Your task to perform on an android device: Do I have any events this weekend? Image 0: 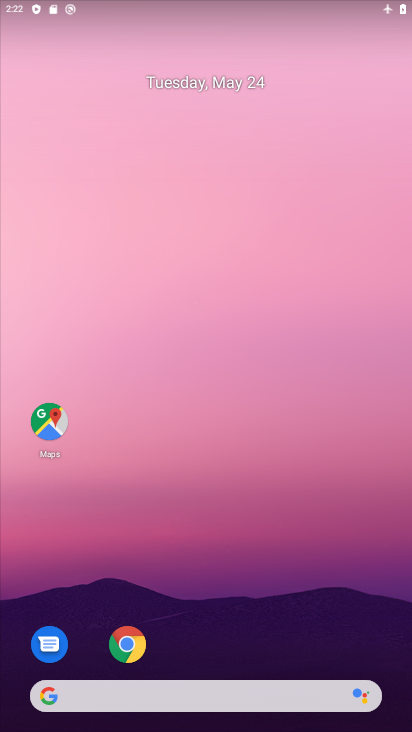
Step 0: drag from (237, 622) to (233, 121)
Your task to perform on an android device: Do I have any events this weekend? Image 1: 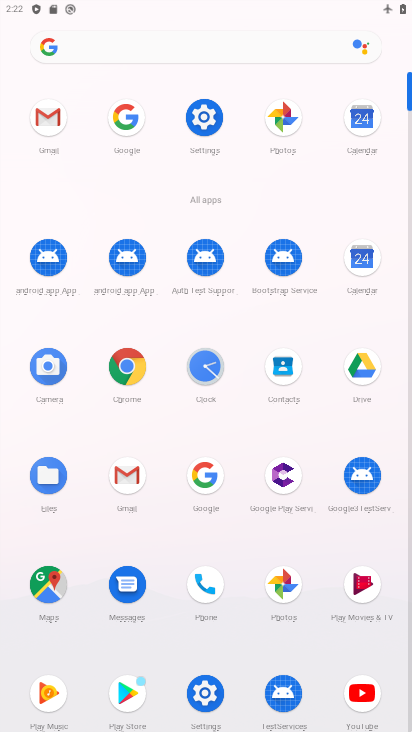
Step 1: click (363, 265)
Your task to perform on an android device: Do I have any events this weekend? Image 2: 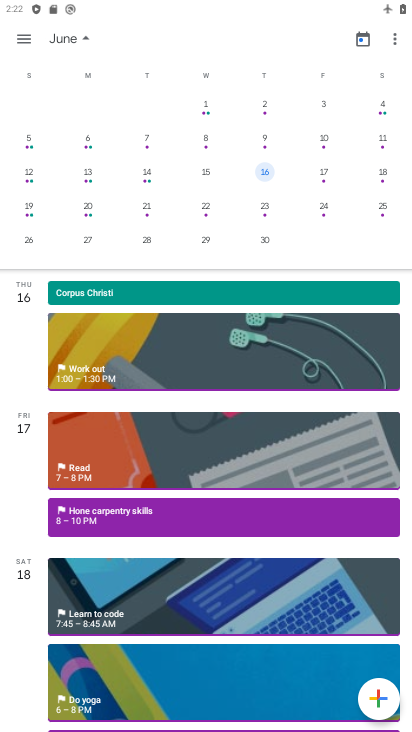
Step 2: drag from (29, 243) to (407, 246)
Your task to perform on an android device: Do I have any events this weekend? Image 3: 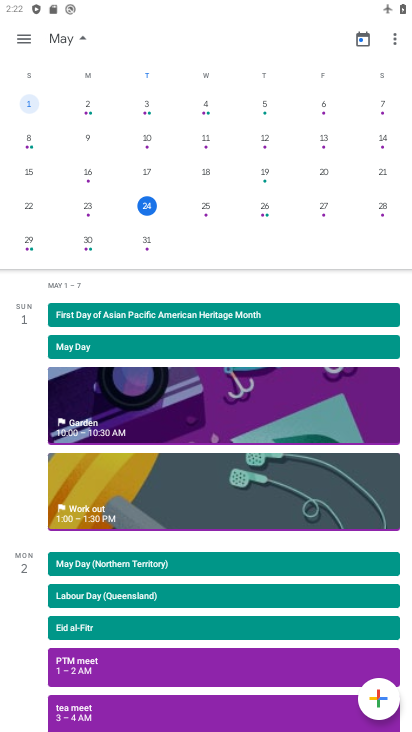
Step 3: click (256, 206)
Your task to perform on an android device: Do I have any events this weekend? Image 4: 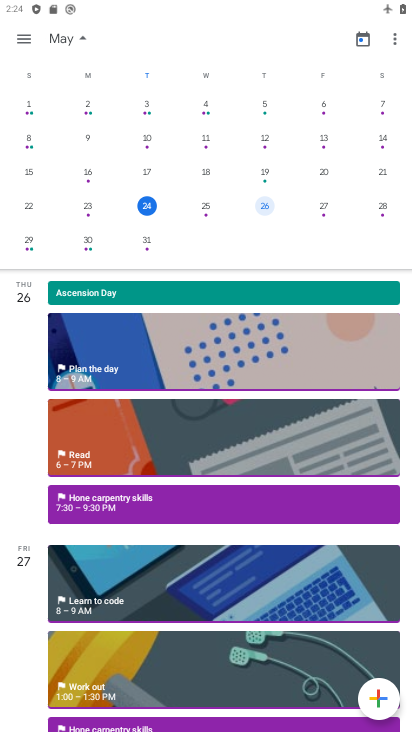
Step 4: task complete